Your task to perform on an android device: Search for sushi restaurants on Maps Image 0: 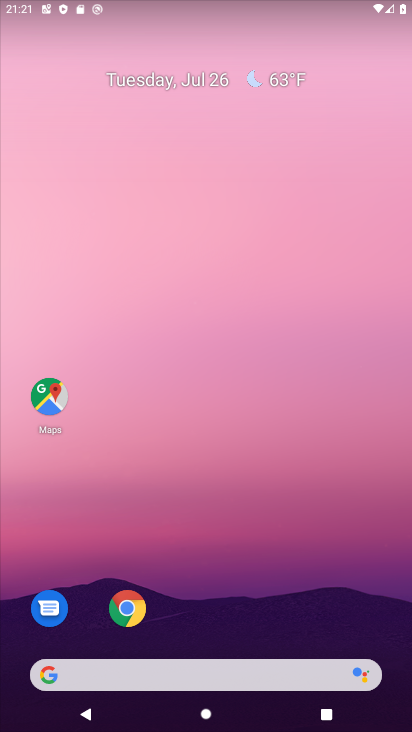
Step 0: click (41, 400)
Your task to perform on an android device: Search for sushi restaurants on Maps Image 1: 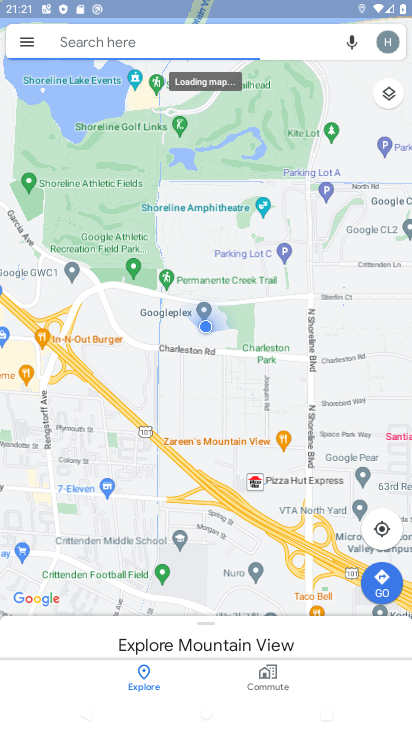
Step 1: click (64, 37)
Your task to perform on an android device: Search for sushi restaurants on Maps Image 2: 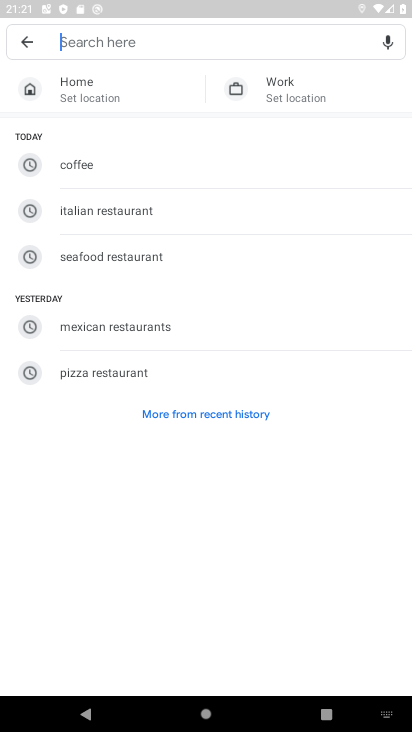
Step 2: type "sushi restaurants"
Your task to perform on an android device: Search for sushi restaurants on Maps Image 3: 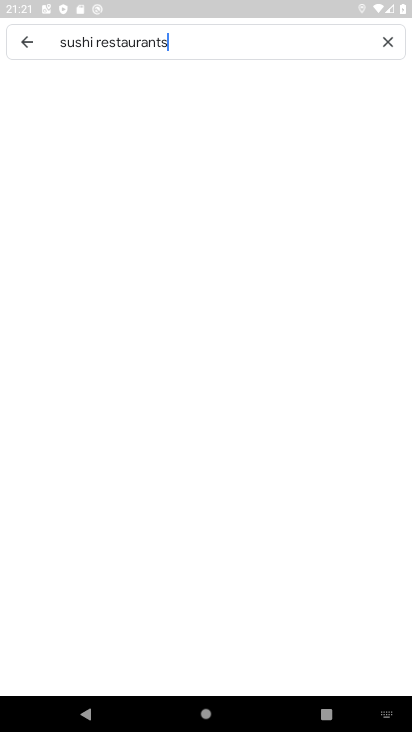
Step 3: type ""
Your task to perform on an android device: Search for sushi restaurants on Maps Image 4: 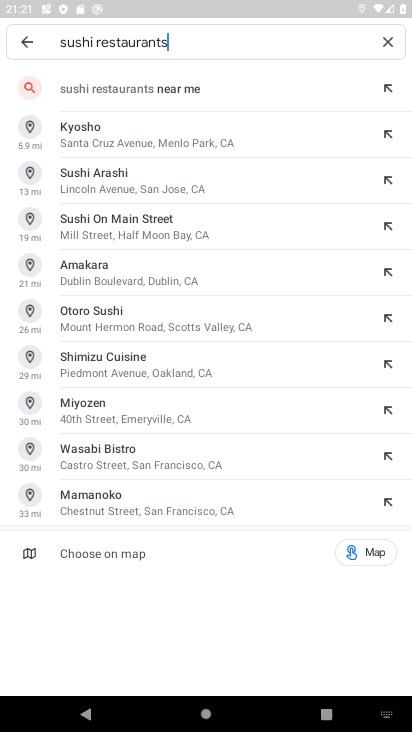
Step 4: type ""
Your task to perform on an android device: Search for sushi restaurants on Maps Image 5: 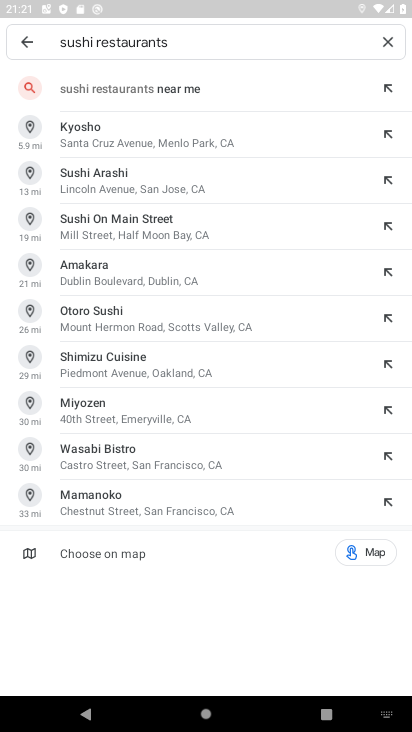
Step 5: task complete